Your task to perform on an android device: Do I have any events today? Image 0: 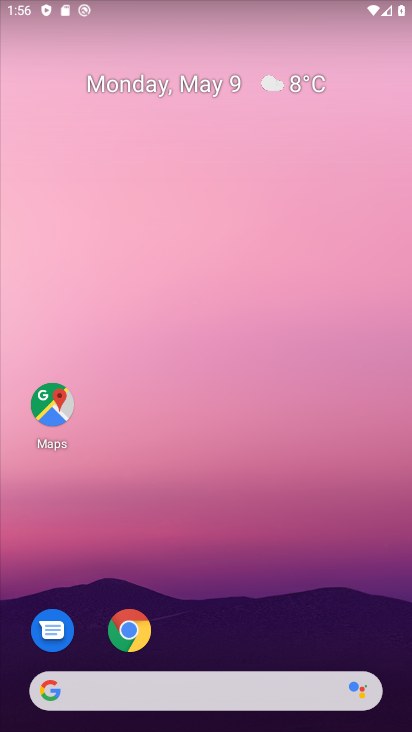
Step 0: drag from (229, 643) to (307, 137)
Your task to perform on an android device: Do I have any events today? Image 1: 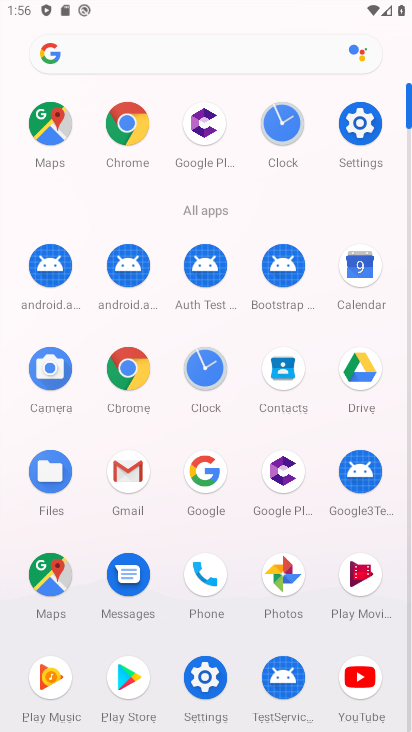
Step 1: click (370, 264)
Your task to perform on an android device: Do I have any events today? Image 2: 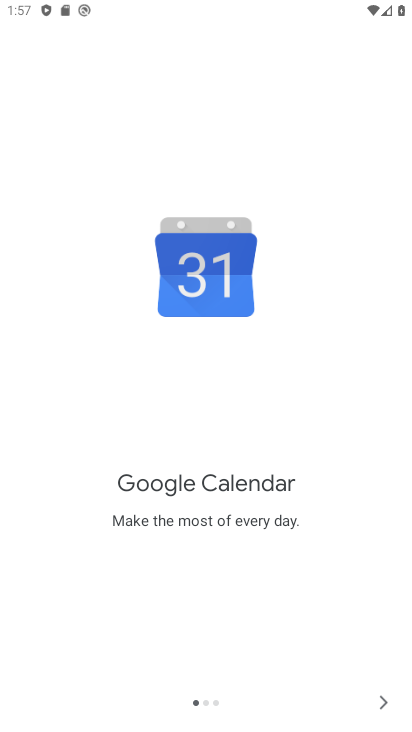
Step 2: click (391, 698)
Your task to perform on an android device: Do I have any events today? Image 3: 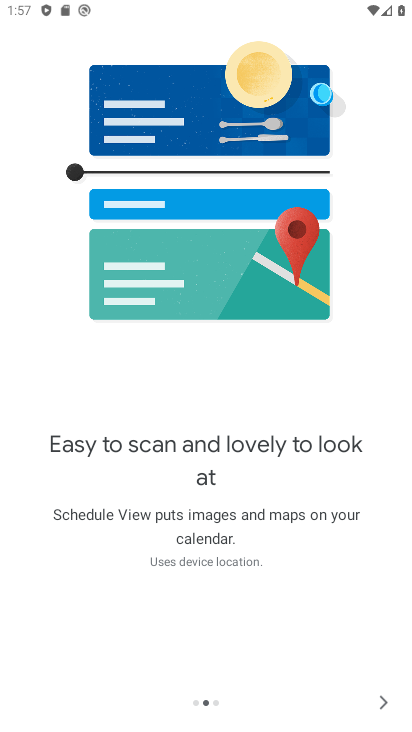
Step 3: click (379, 699)
Your task to perform on an android device: Do I have any events today? Image 4: 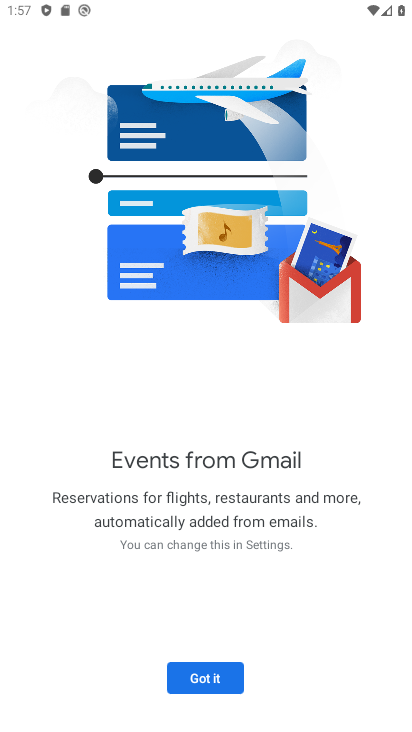
Step 4: click (211, 683)
Your task to perform on an android device: Do I have any events today? Image 5: 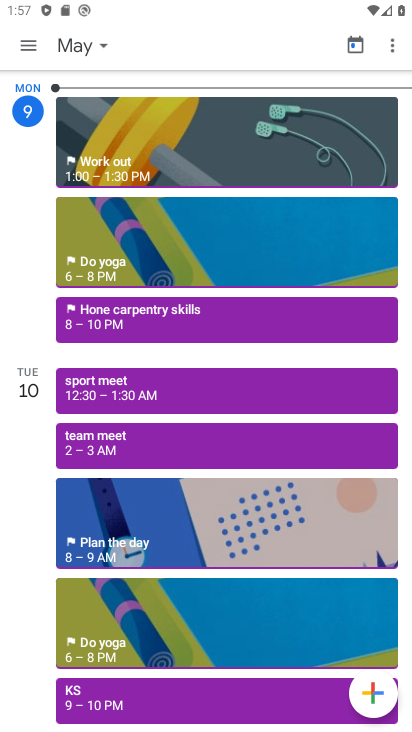
Step 5: click (204, 257)
Your task to perform on an android device: Do I have any events today? Image 6: 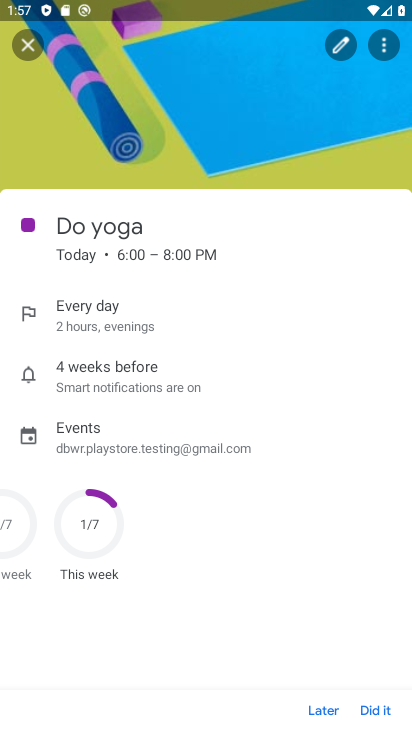
Step 6: task complete